Your task to perform on an android device: turn on data saver in the chrome app Image 0: 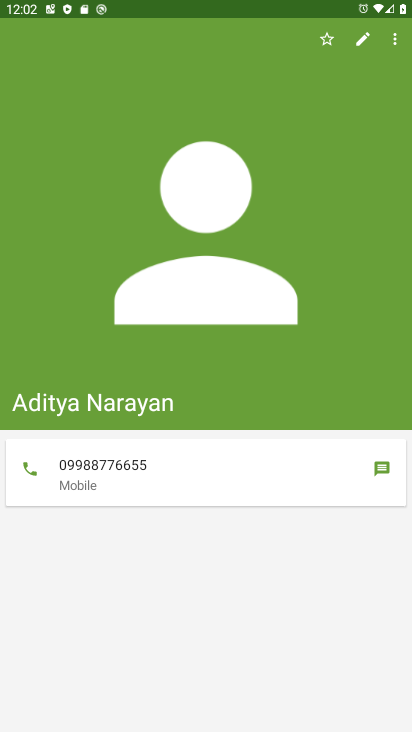
Step 0: press home button
Your task to perform on an android device: turn on data saver in the chrome app Image 1: 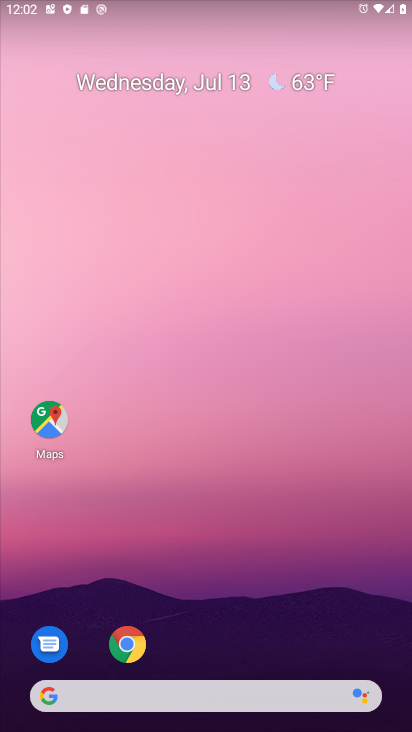
Step 1: click (126, 644)
Your task to perform on an android device: turn on data saver in the chrome app Image 2: 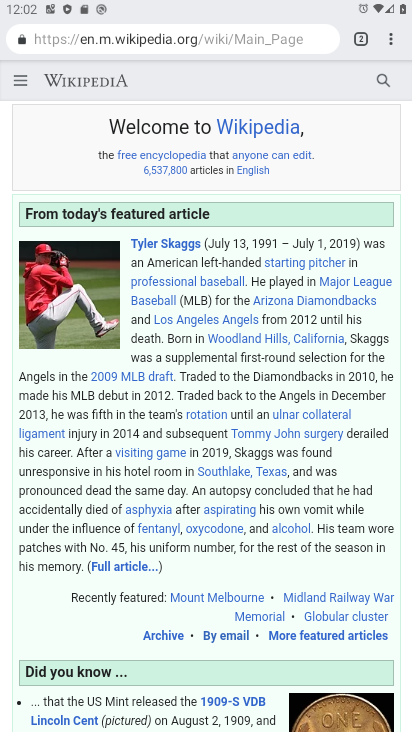
Step 2: click (391, 42)
Your task to perform on an android device: turn on data saver in the chrome app Image 3: 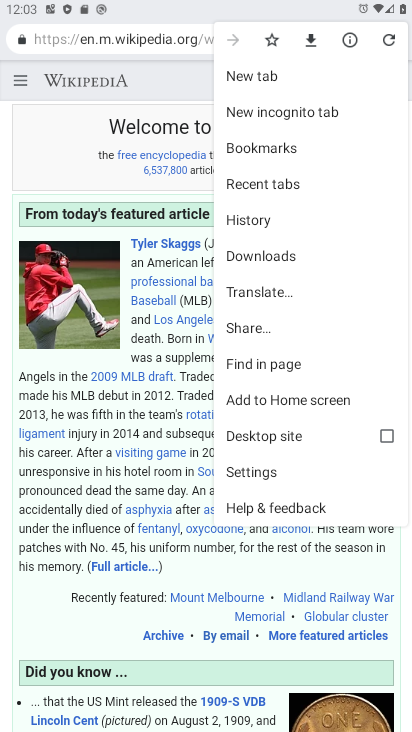
Step 3: click (262, 470)
Your task to perform on an android device: turn on data saver in the chrome app Image 4: 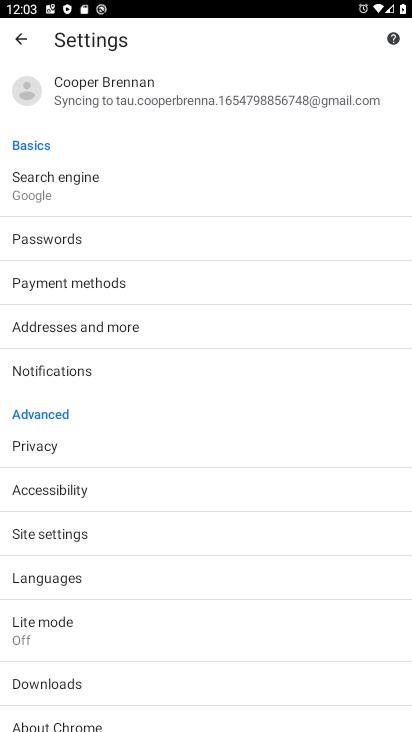
Step 4: click (67, 623)
Your task to perform on an android device: turn on data saver in the chrome app Image 5: 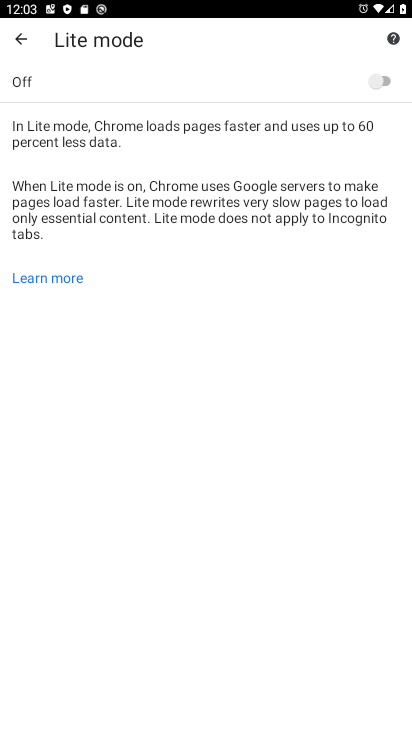
Step 5: click (378, 79)
Your task to perform on an android device: turn on data saver in the chrome app Image 6: 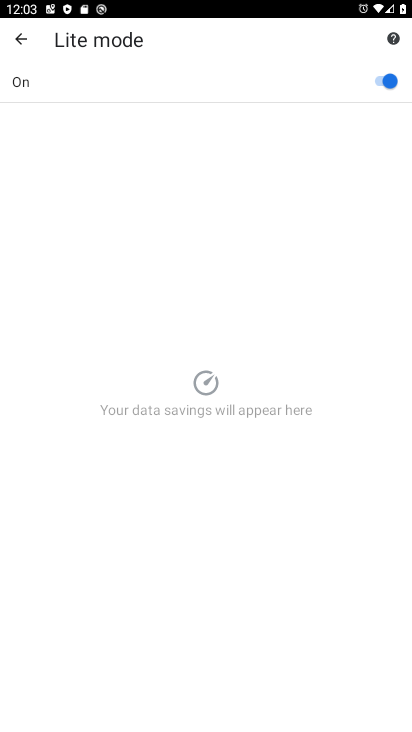
Step 6: task complete